Your task to perform on an android device: open app "Spotify: Music and Podcasts" (install if not already installed) Image 0: 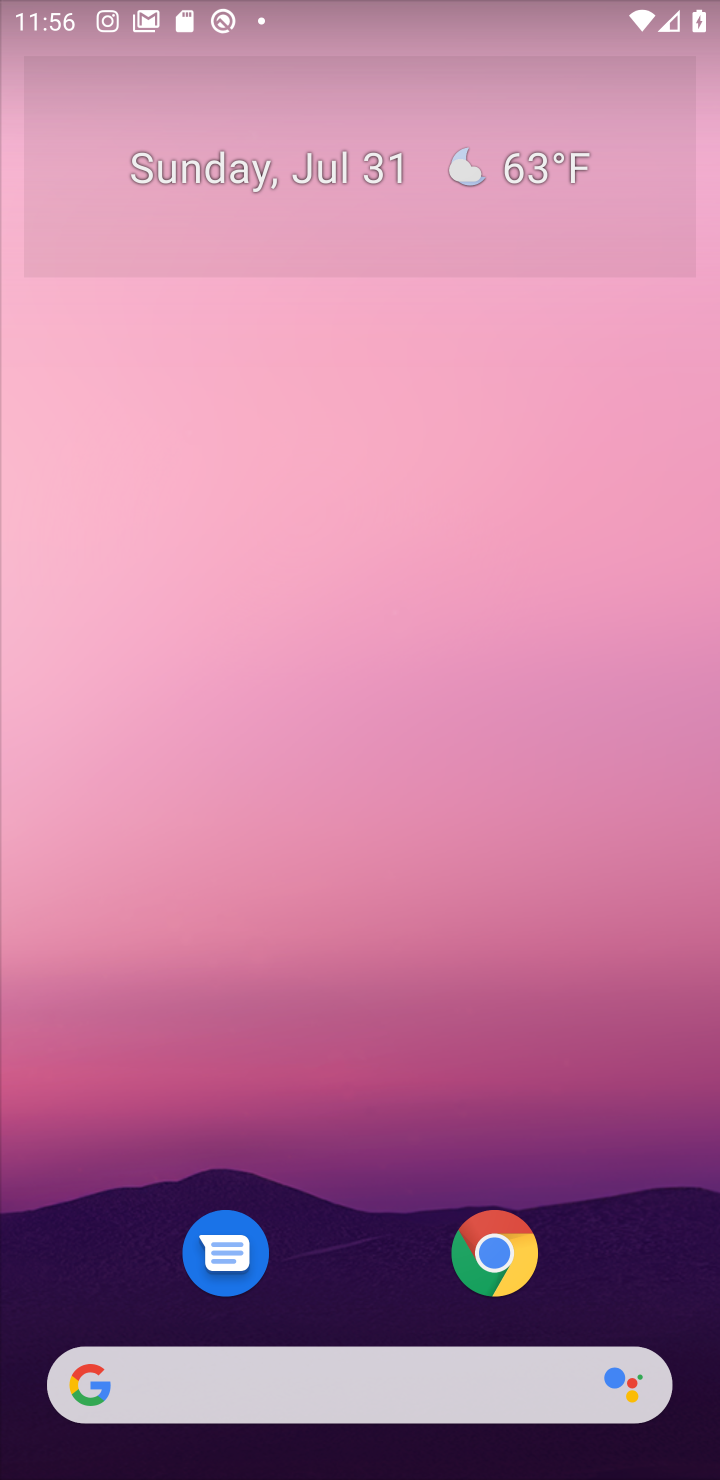
Step 0: drag from (412, 1182) to (492, 150)
Your task to perform on an android device: open app "Spotify: Music and Podcasts" (install if not already installed) Image 1: 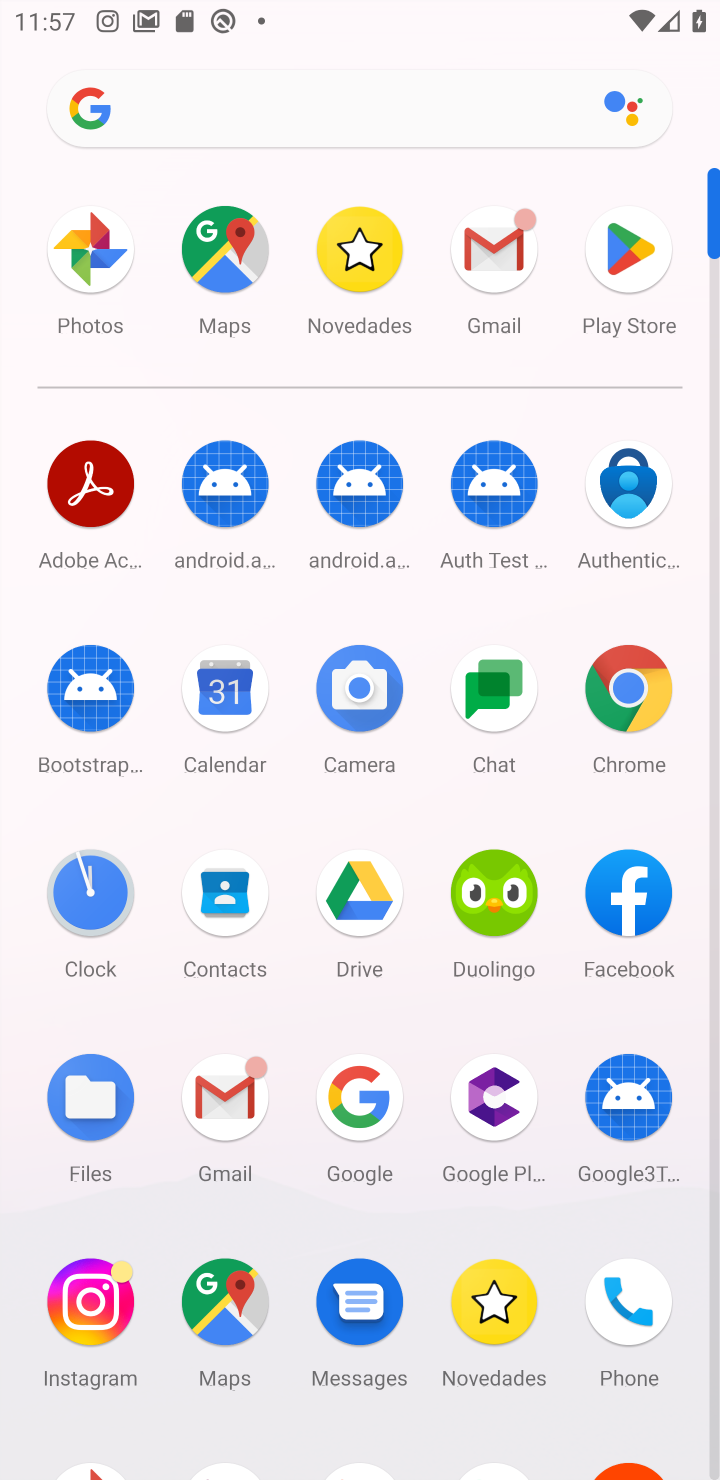
Step 1: click (638, 256)
Your task to perform on an android device: open app "Spotify: Music and Podcasts" (install if not already installed) Image 2: 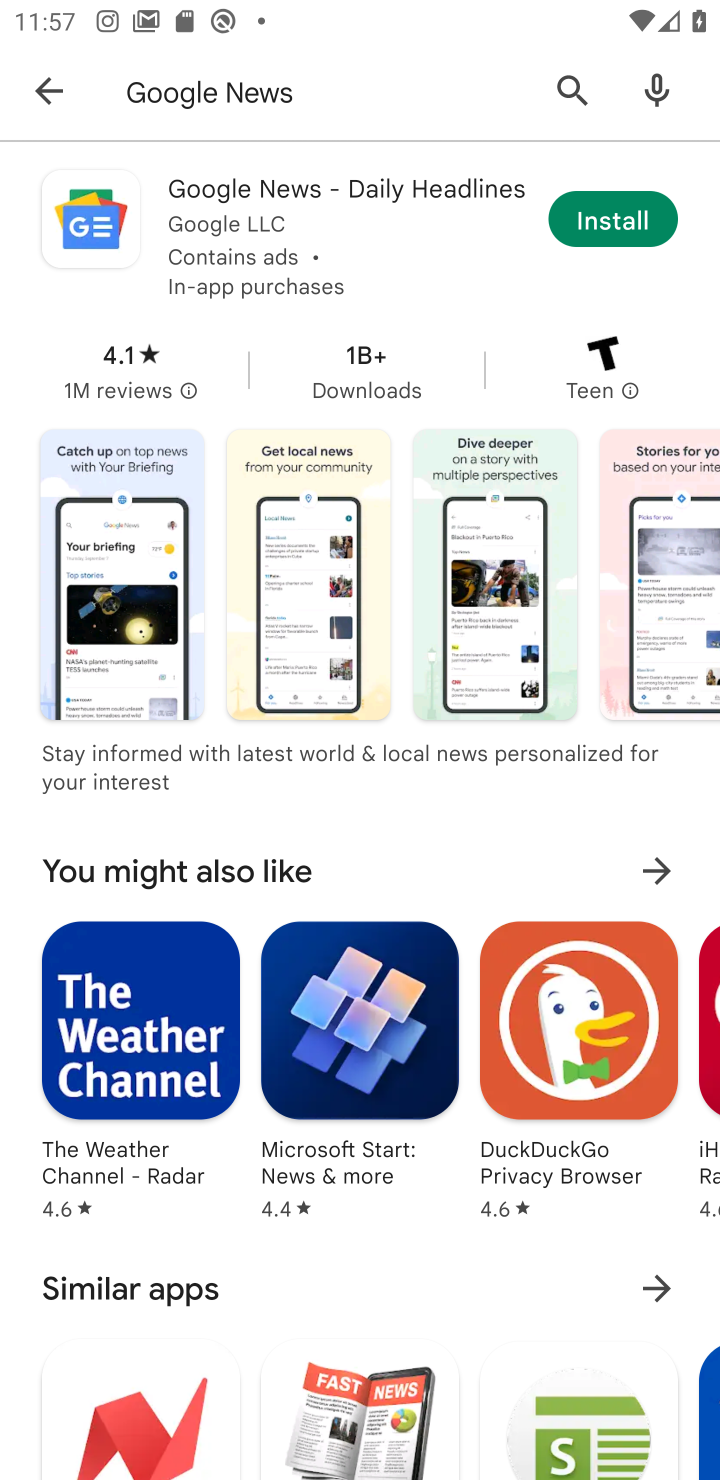
Step 2: click (245, 91)
Your task to perform on an android device: open app "Spotify: Music and Podcasts" (install if not already installed) Image 3: 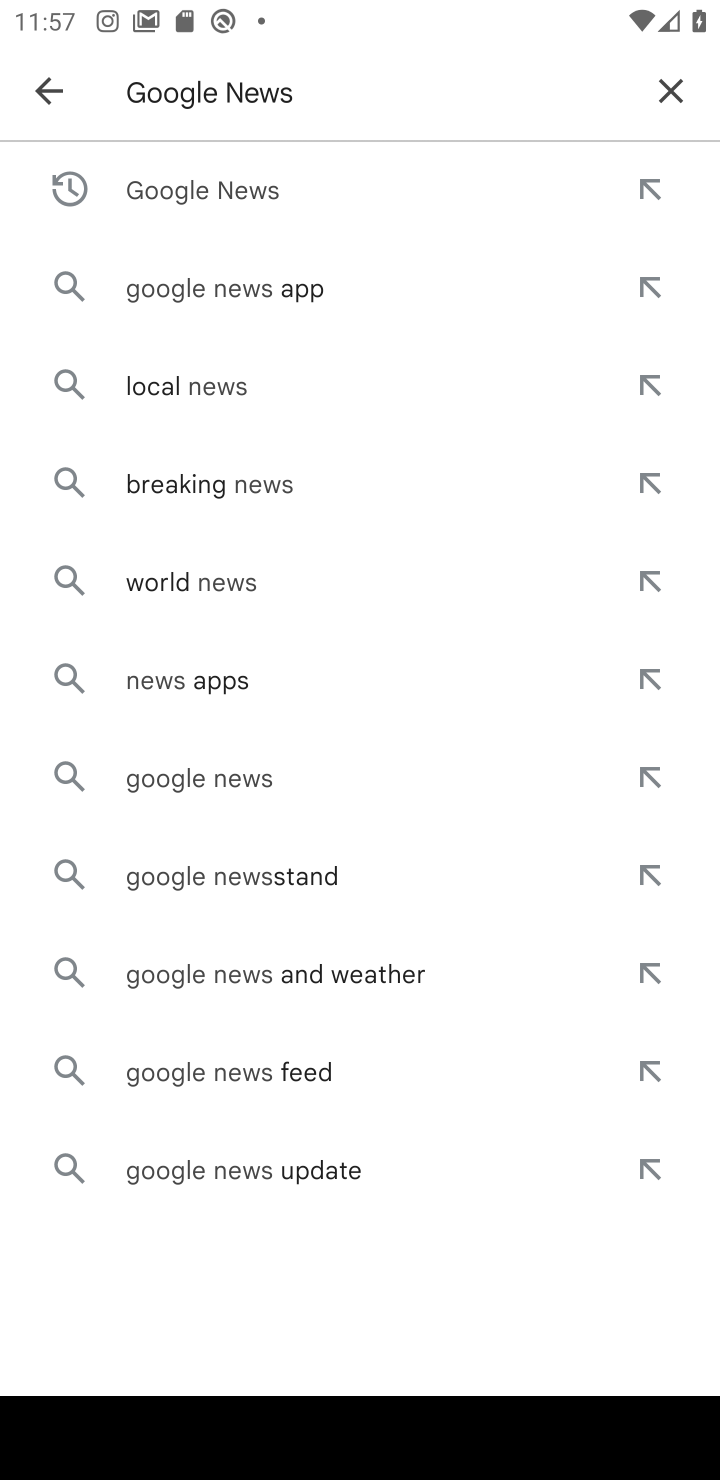
Step 3: click (681, 95)
Your task to perform on an android device: open app "Spotify: Music and Podcasts" (install if not already installed) Image 4: 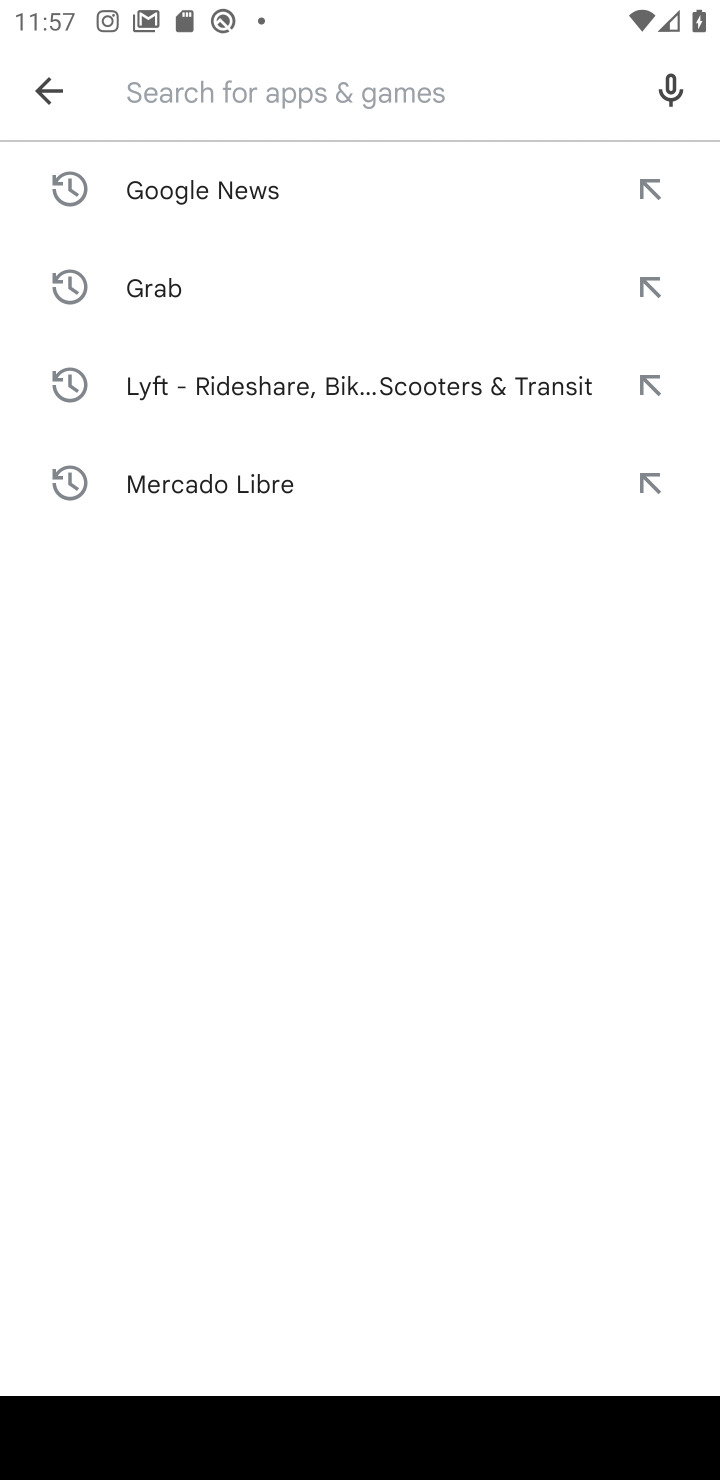
Step 4: type "Spotify: Music and Podcasts"
Your task to perform on an android device: open app "Spotify: Music and Podcasts" (install if not already installed) Image 5: 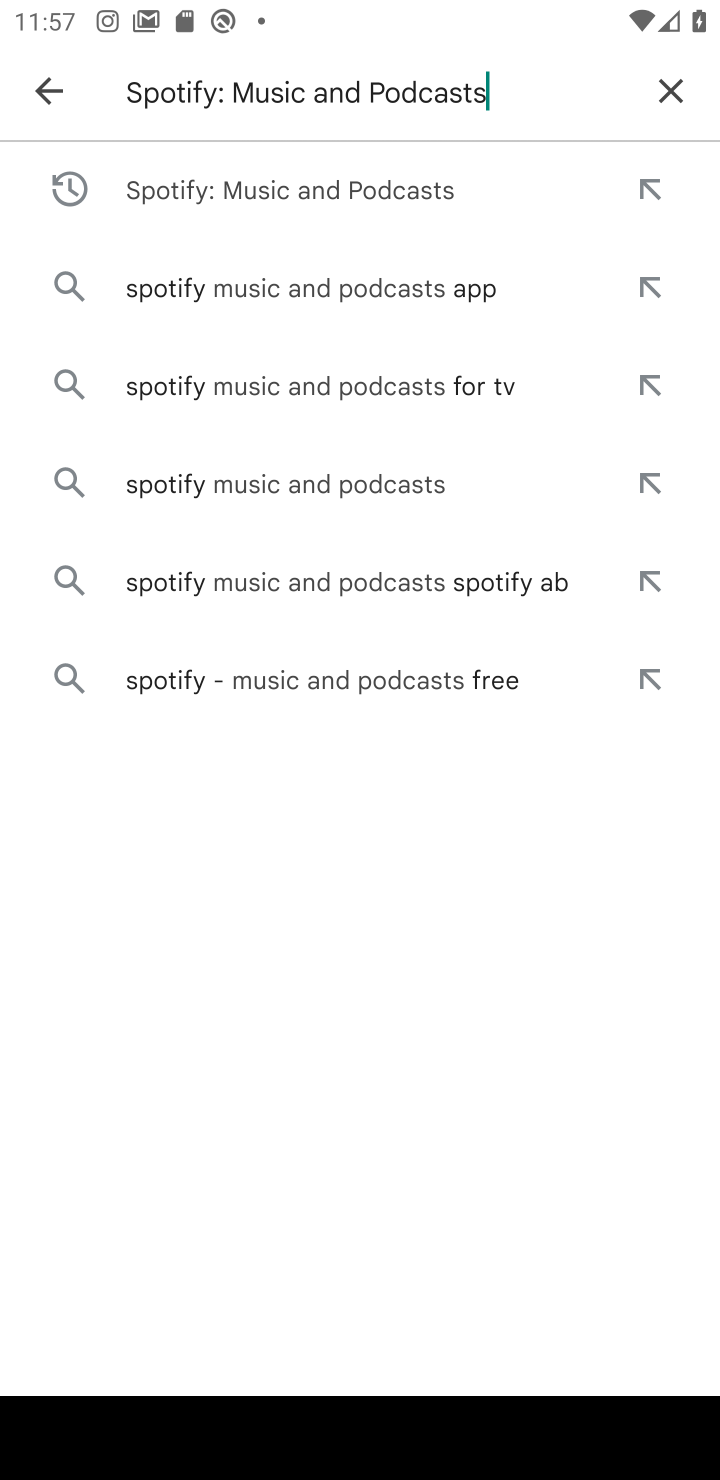
Step 5: press enter
Your task to perform on an android device: open app "Spotify: Music and Podcasts" (install if not already installed) Image 6: 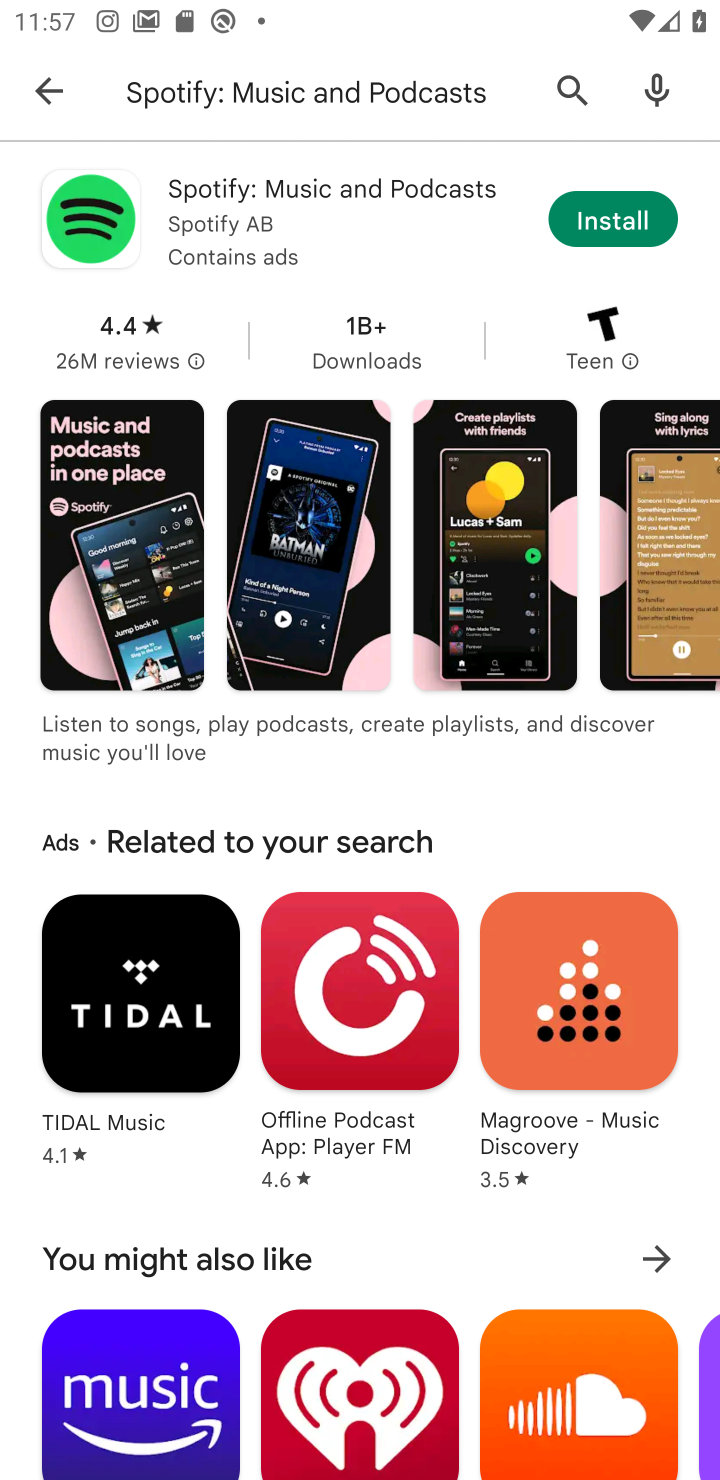
Step 6: click (674, 228)
Your task to perform on an android device: open app "Spotify: Music and Podcasts" (install if not already installed) Image 7: 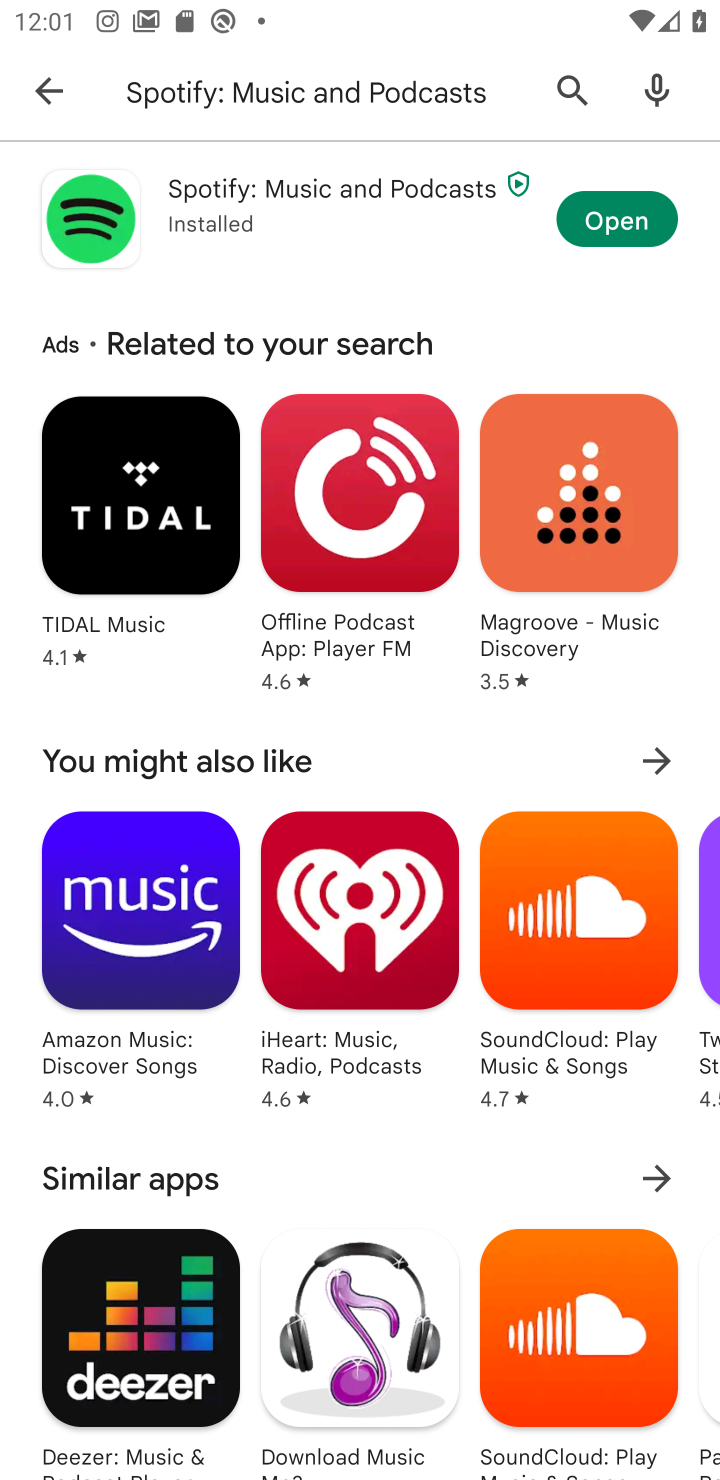
Step 7: click (596, 224)
Your task to perform on an android device: open app "Spotify: Music and Podcasts" (install if not already installed) Image 8: 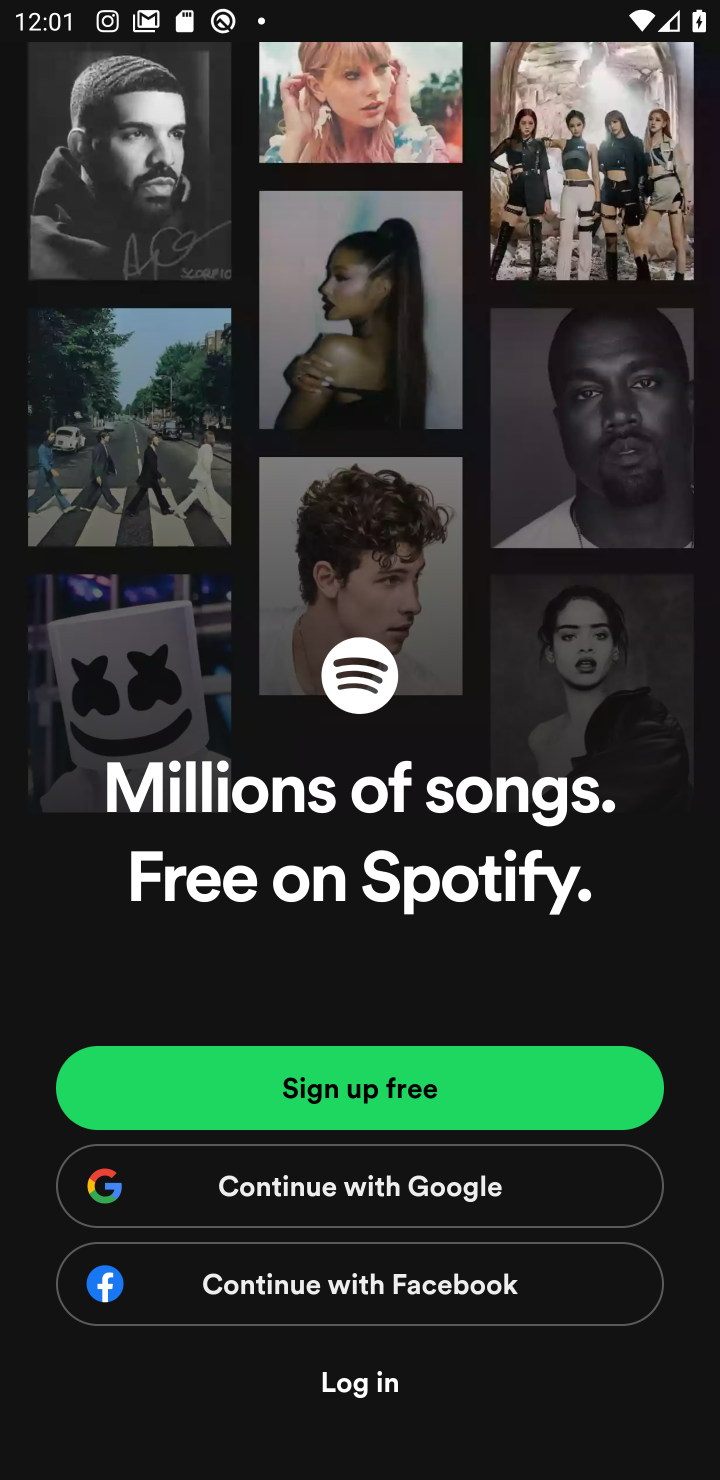
Step 8: task complete